Your task to perform on an android device: Turn on the flashlight Image 0: 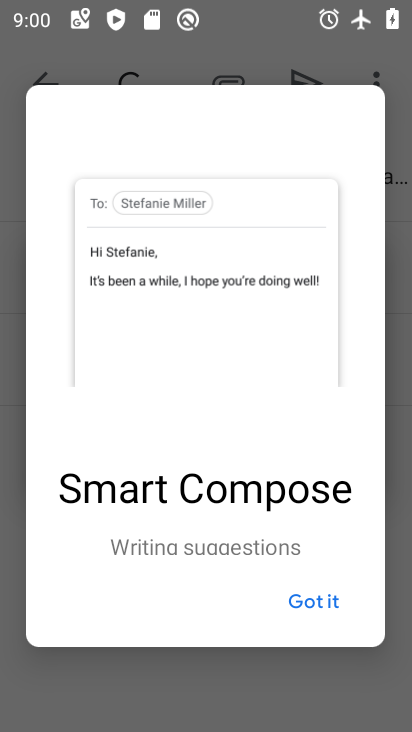
Step 0: drag from (233, 51) to (261, 521)
Your task to perform on an android device: Turn on the flashlight Image 1: 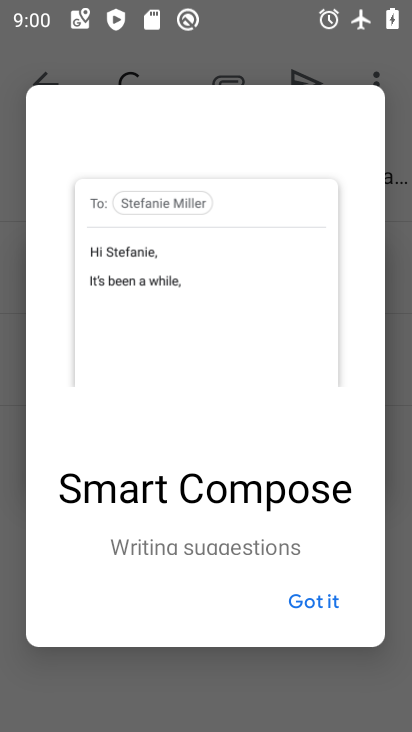
Step 1: click (311, 607)
Your task to perform on an android device: Turn on the flashlight Image 2: 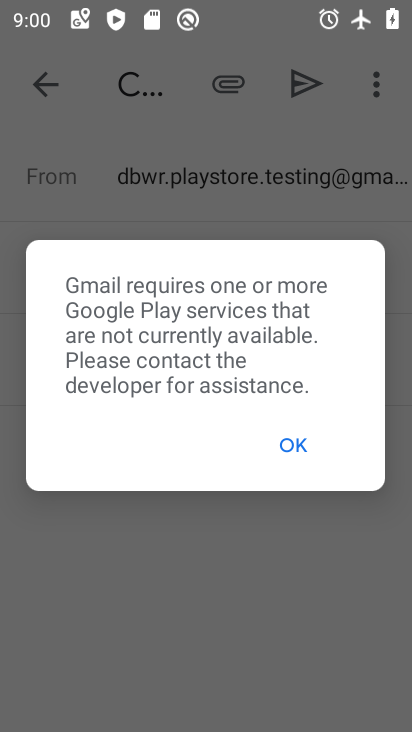
Step 2: click (304, 450)
Your task to perform on an android device: Turn on the flashlight Image 3: 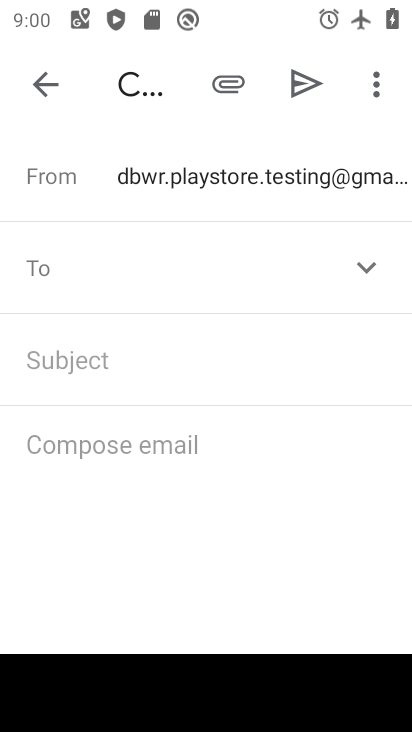
Step 3: task complete